Your task to perform on an android device: turn off improve location accuracy Image 0: 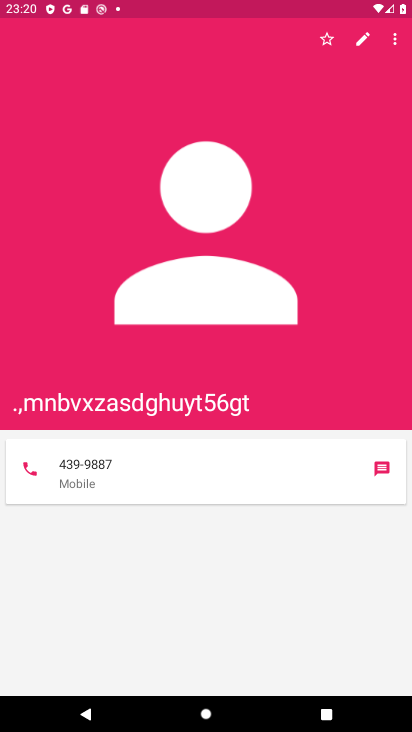
Step 0: press home button
Your task to perform on an android device: turn off improve location accuracy Image 1: 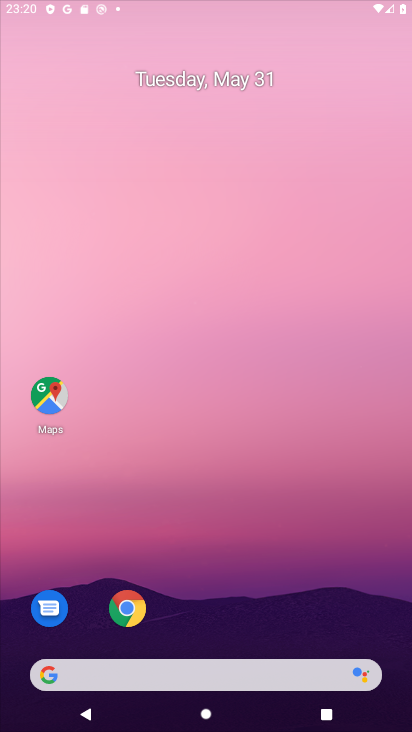
Step 1: drag from (296, 535) to (291, 8)
Your task to perform on an android device: turn off improve location accuracy Image 2: 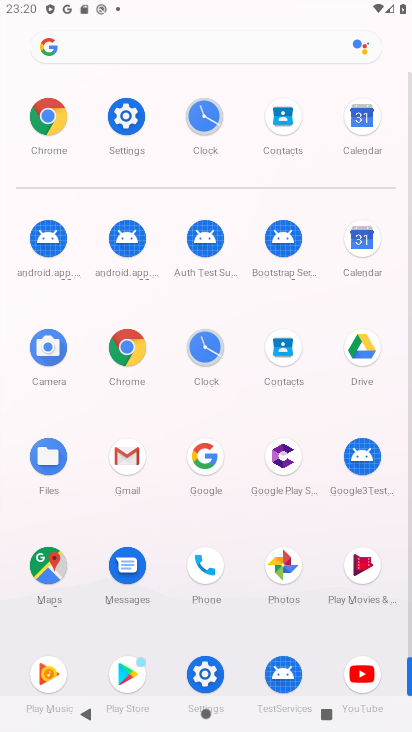
Step 2: click (123, 106)
Your task to perform on an android device: turn off improve location accuracy Image 3: 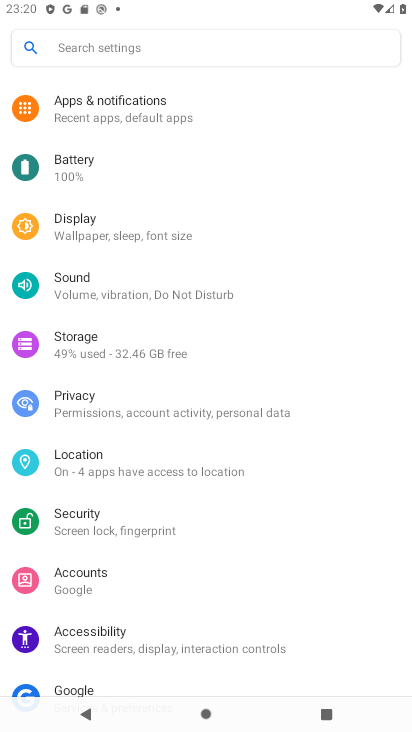
Step 3: click (170, 470)
Your task to perform on an android device: turn off improve location accuracy Image 4: 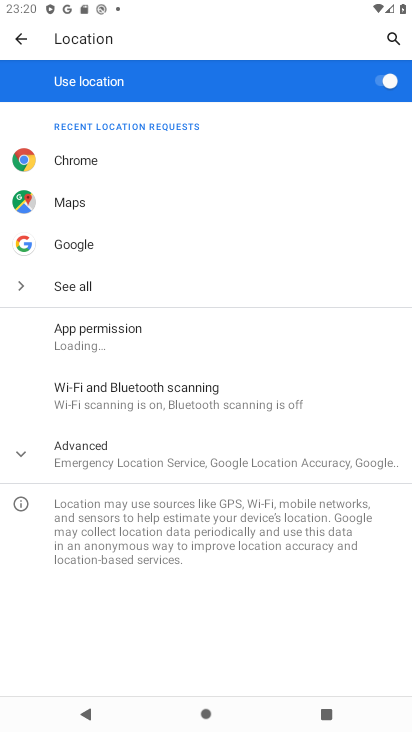
Step 4: click (48, 453)
Your task to perform on an android device: turn off improve location accuracy Image 5: 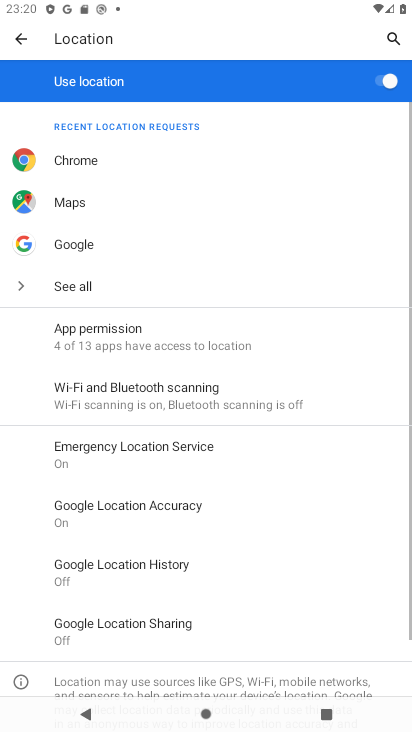
Step 5: click (133, 510)
Your task to perform on an android device: turn off improve location accuracy Image 6: 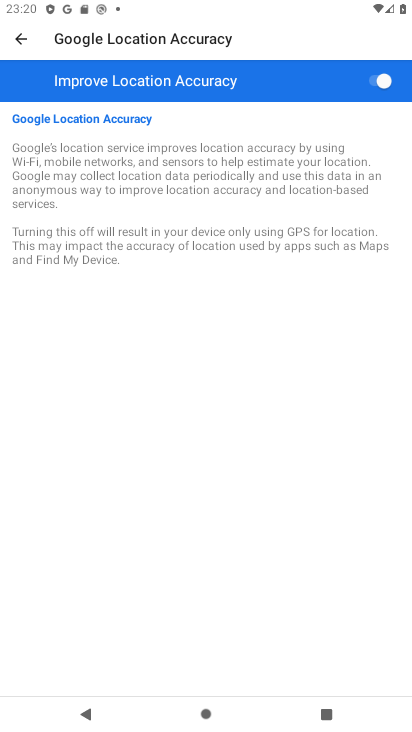
Step 6: click (324, 88)
Your task to perform on an android device: turn off improve location accuracy Image 7: 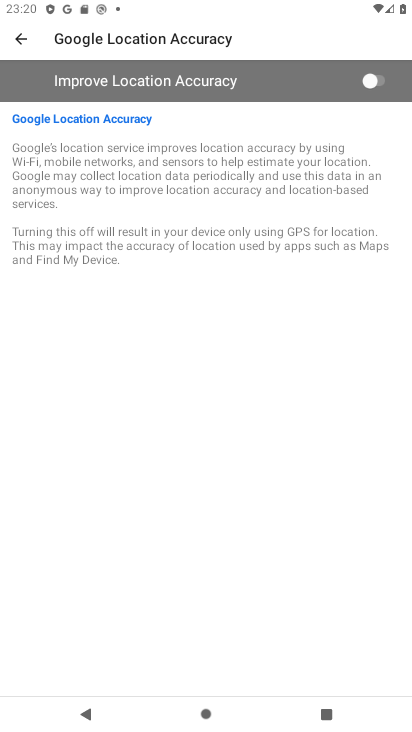
Step 7: task complete